Your task to perform on an android device: Open settings Image 0: 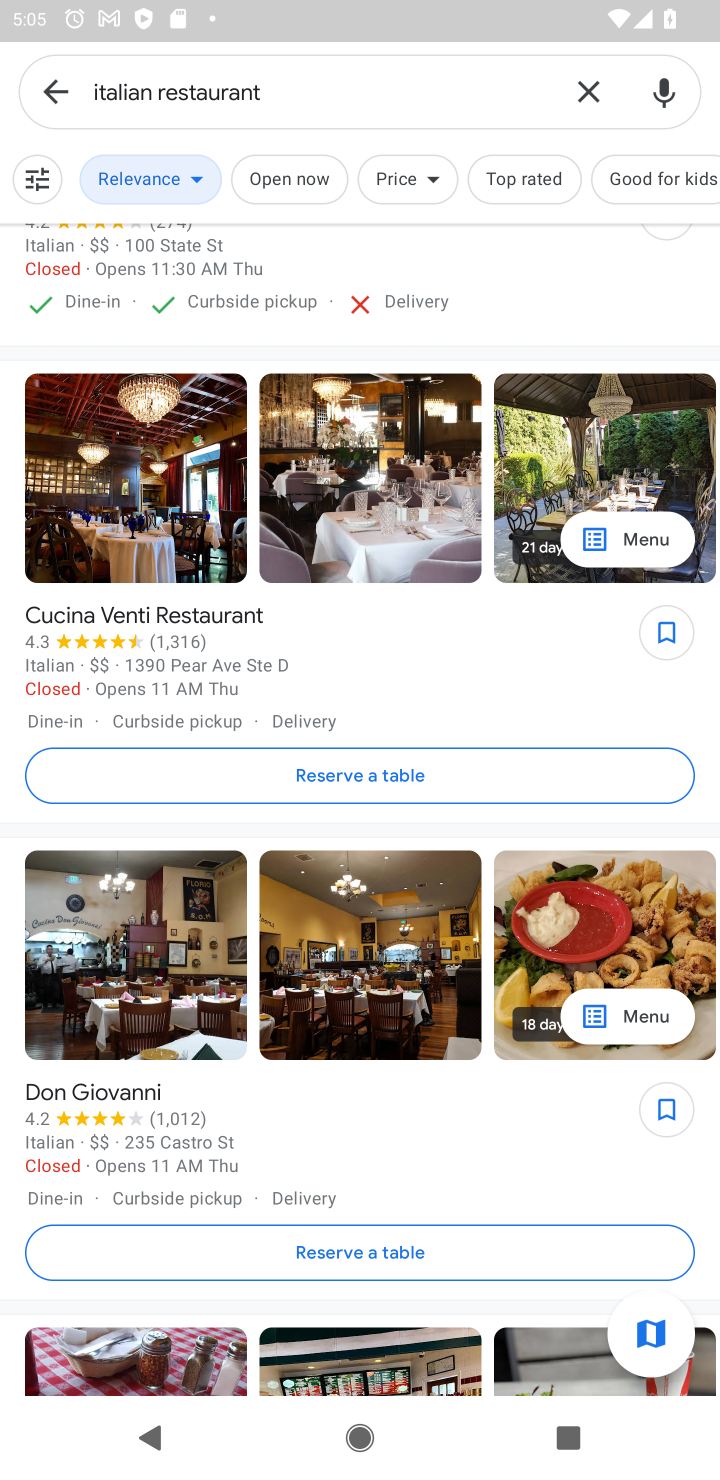
Step 0: press home button
Your task to perform on an android device: Open settings Image 1: 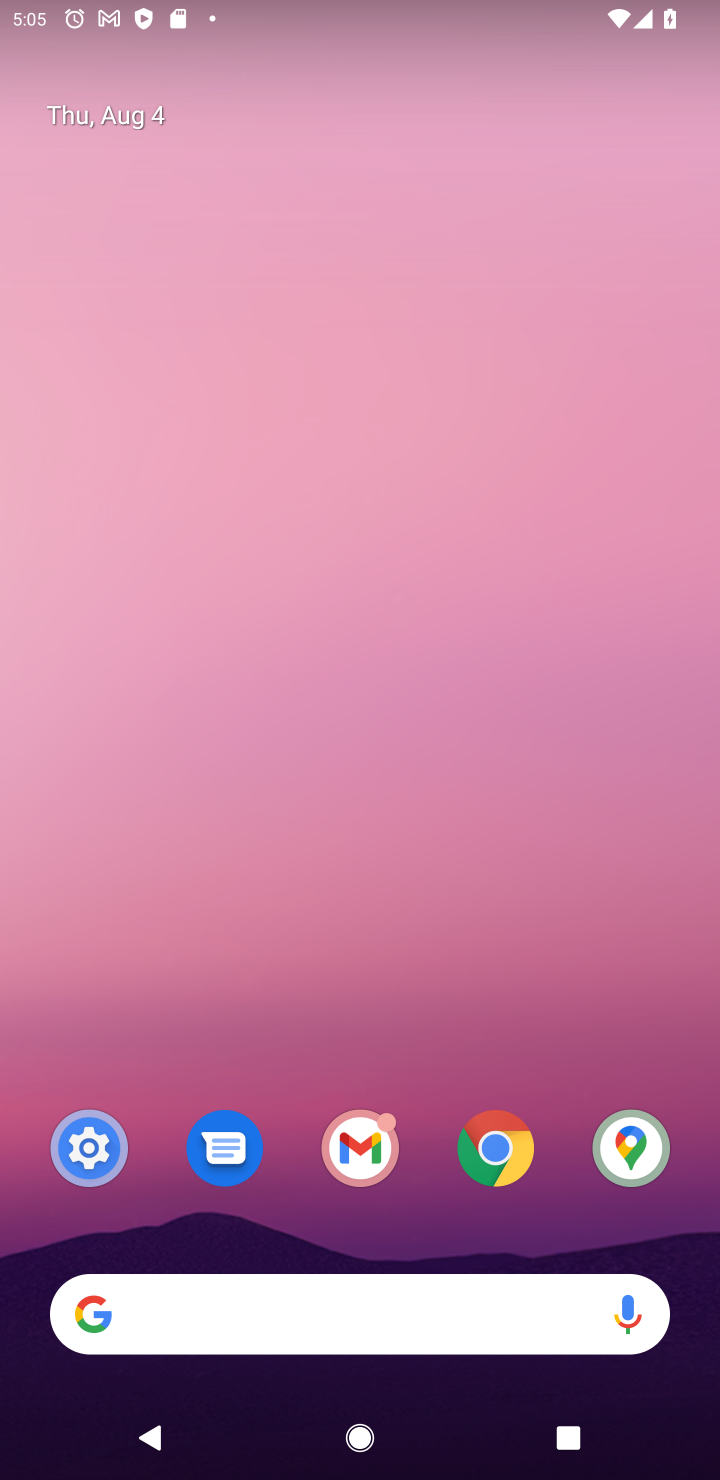
Step 1: click (87, 1146)
Your task to perform on an android device: Open settings Image 2: 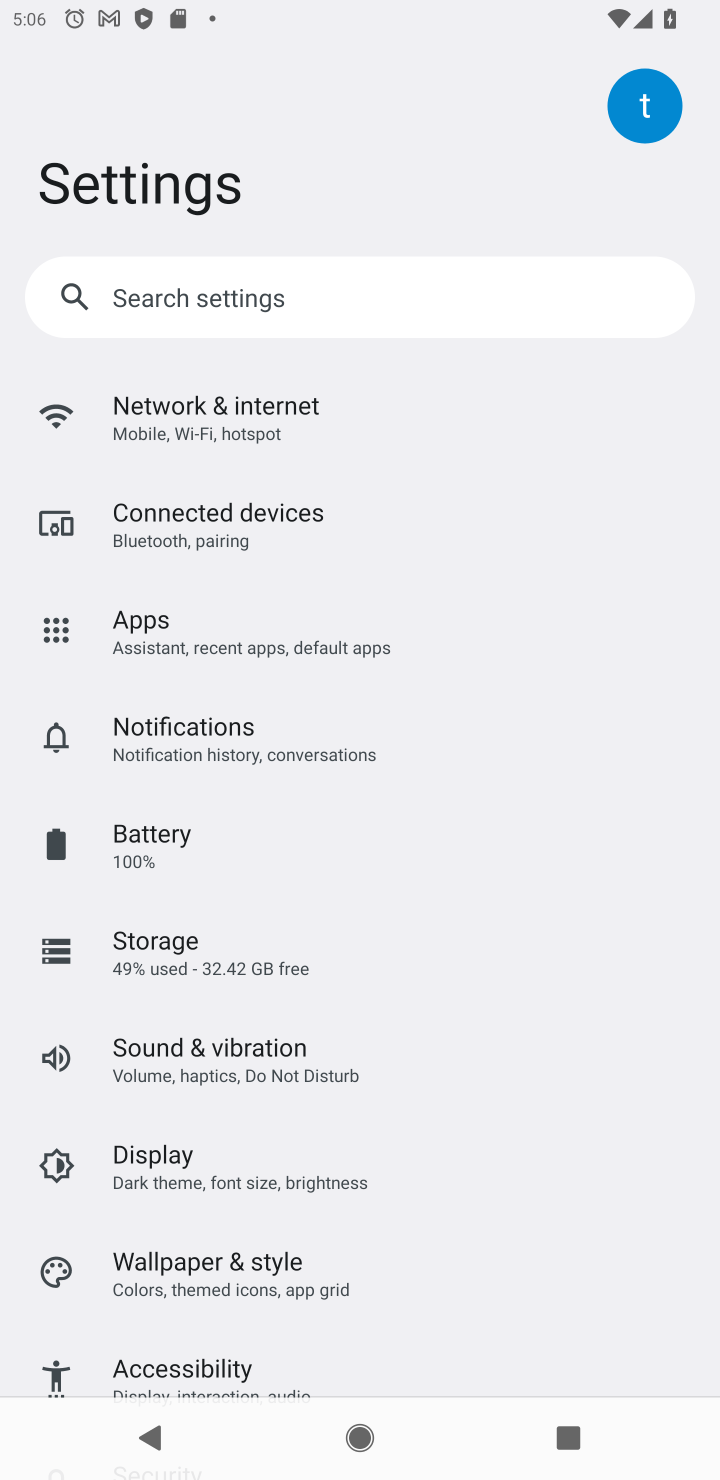
Step 2: task complete